Your task to perform on an android device: toggle pop-ups in chrome Image 0: 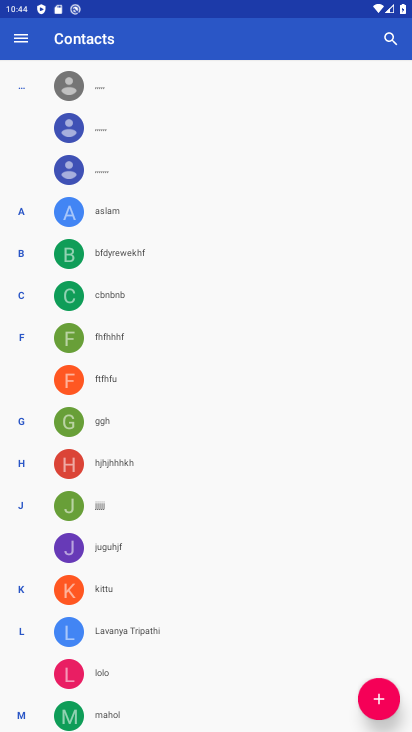
Step 0: press home button
Your task to perform on an android device: toggle pop-ups in chrome Image 1: 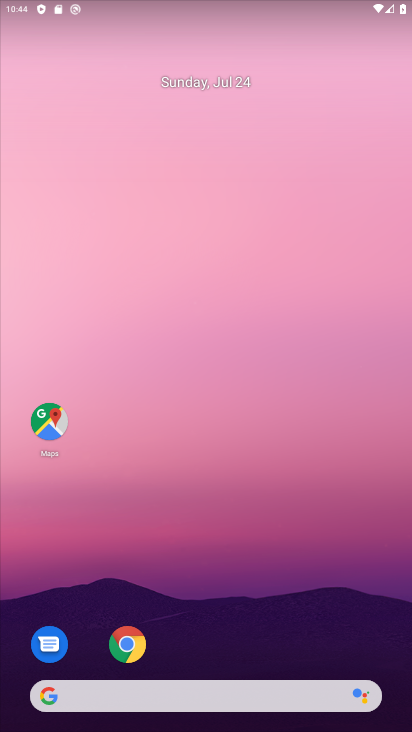
Step 1: click (124, 651)
Your task to perform on an android device: toggle pop-ups in chrome Image 2: 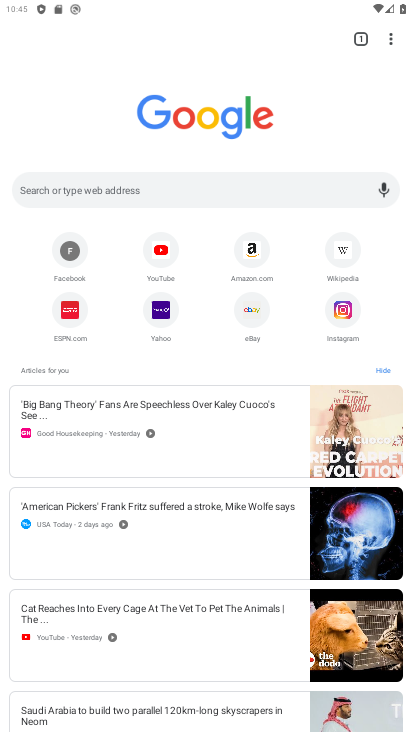
Step 2: click (393, 39)
Your task to perform on an android device: toggle pop-ups in chrome Image 3: 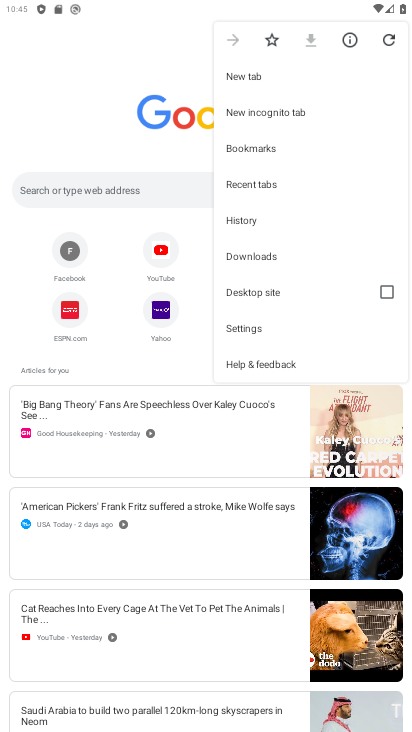
Step 3: click (257, 333)
Your task to perform on an android device: toggle pop-ups in chrome Image 4: 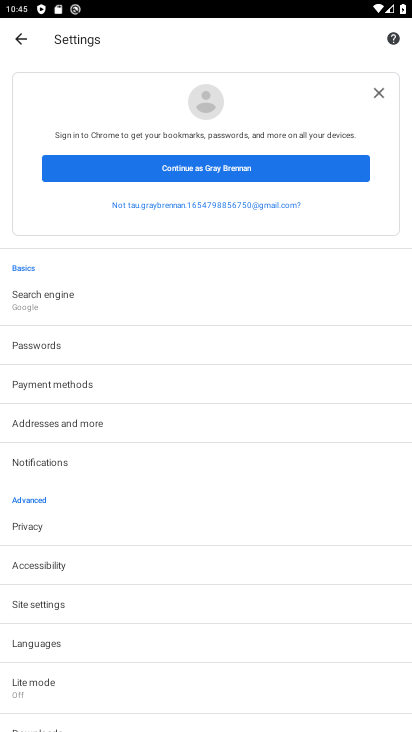
Step 4: click (66, 609)
Your task to perform on an android device: toggle pop-ups in chrome Image 5: 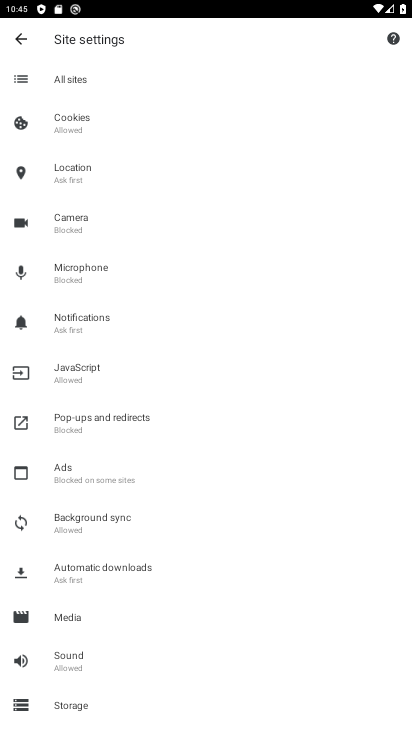
Step 5: click (84, 433)
Your task to perform on an android device: toggle pop-ups in chrome Image 6: 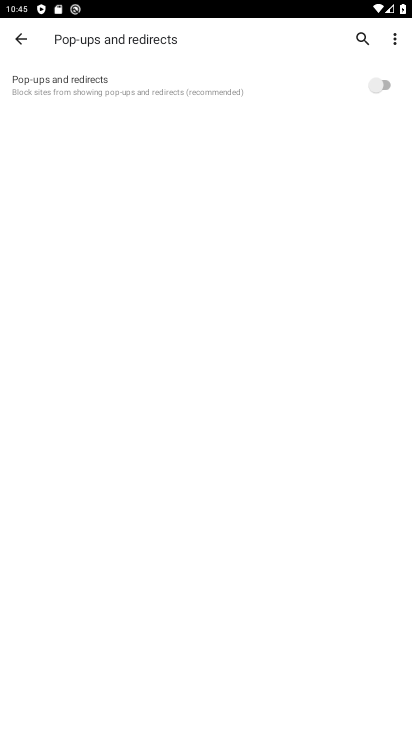
Step 6: click (377, 82)
Your task to perform on an android device: toggle pop-ups in chrome Image 7: 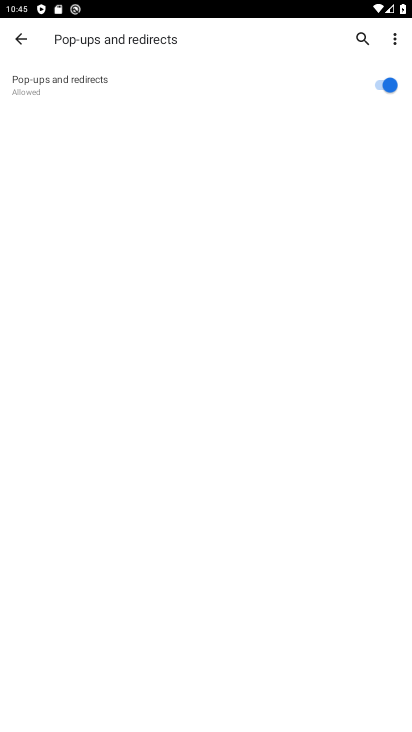
Step 7: task complete